Your task to perform on an android device: open the mobile data screen to see how much data has been used Image 0: 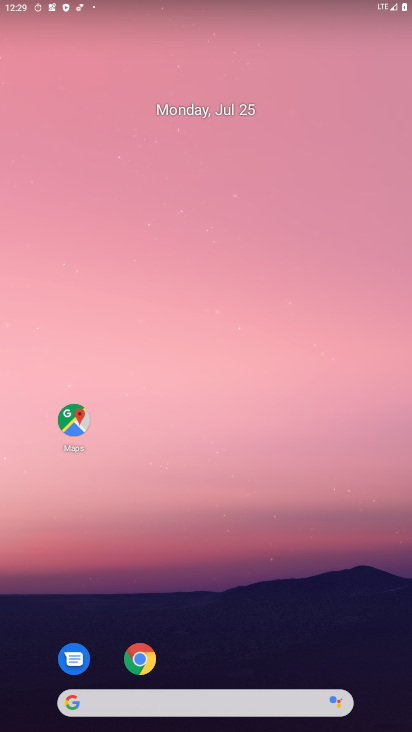
Step 0: drag from (59, 14) to (271, 259)
Your task to perform on an android device: open the mobile data screen to see how much data has been used Image 1: 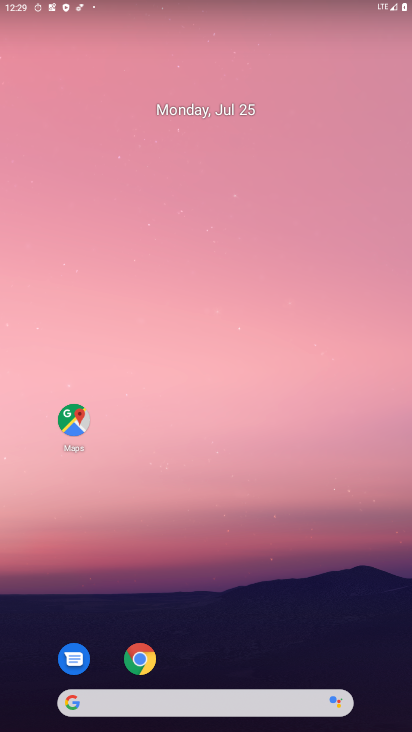
Step 1: drag from (110, 512) to (320, 3)
Your task to perform on an android device: open the mobile data screen to see how much data has been used Image 2: 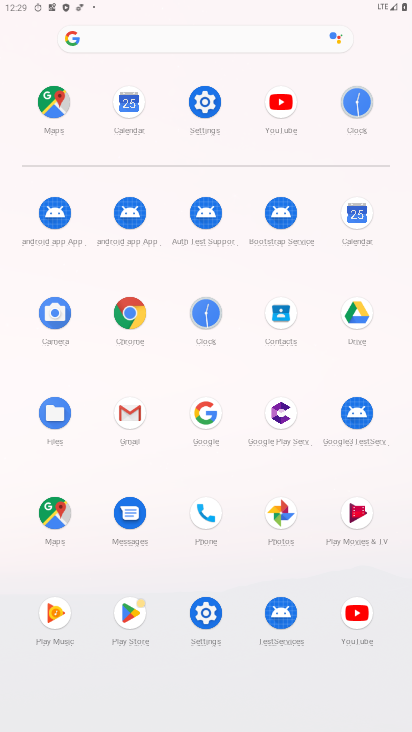
Step 2: click (193, 617)
Your task to perform on an android device: open the mobile data screen to see how much data has been used Image 3: 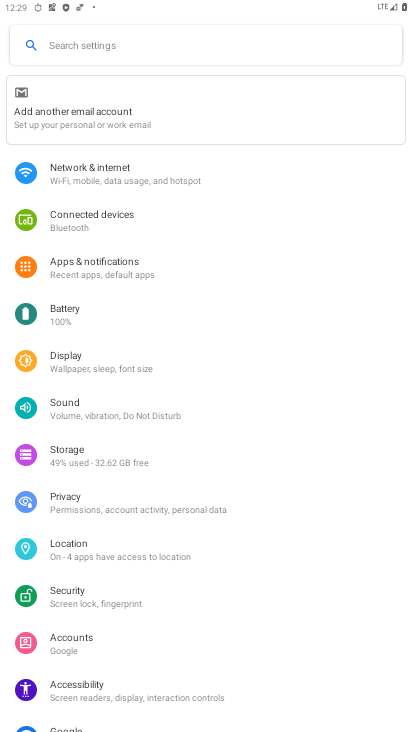
Step 3: click (105, 166)
Your task to perform on an android device: open the mobile data screen to see how much data has been used Image 4: 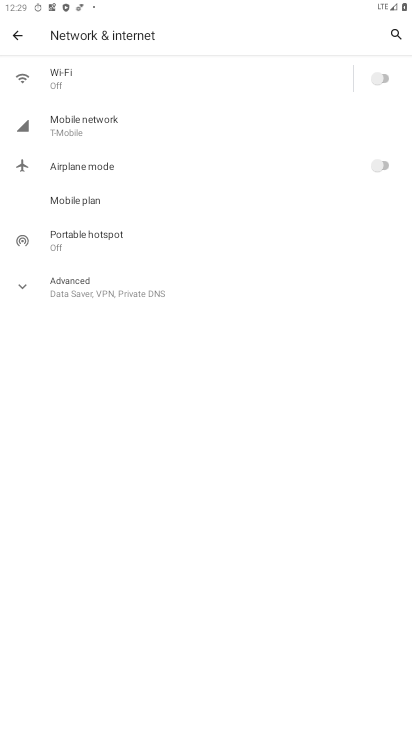
Step 4: click (82, 132)
Your task to perform on an android device: open the mobile data screen to see how much data has been used Image 5: 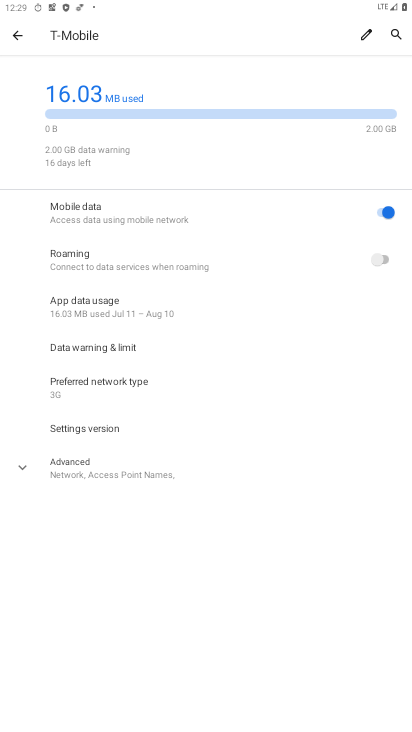
Step 5: task complete